Your task to perform on an android device: choose inbox layout in the gmail app Image 0: 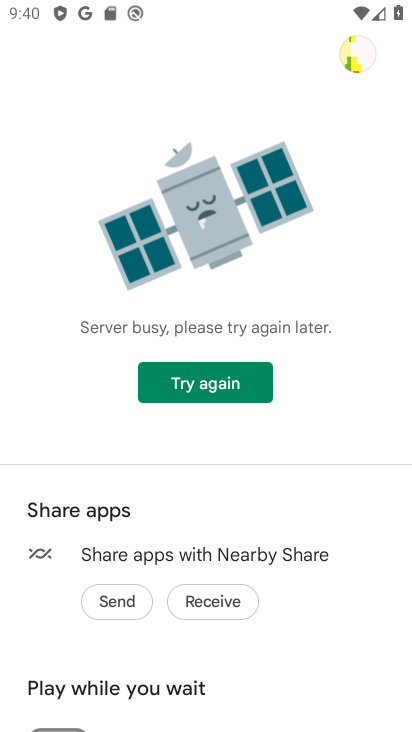
Step 0: press back button
Your task to perform on an android device: choose inbox layout in the gmail app Image 1: 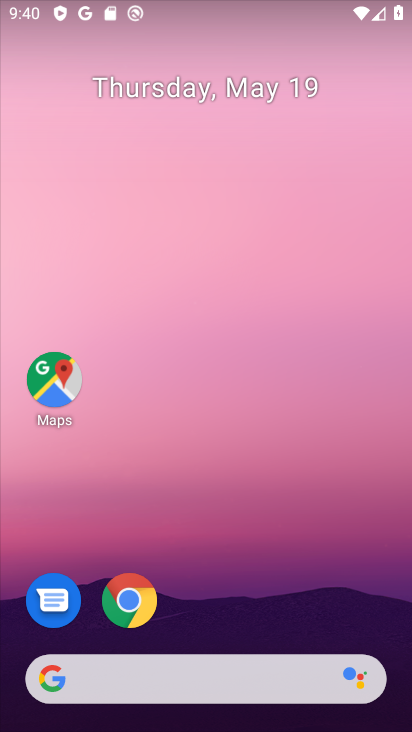
Step 1: drag from (214, 594) to (149, 3)
Your task to perform on an android device: choose inbox layout in the gmail app Image 2: 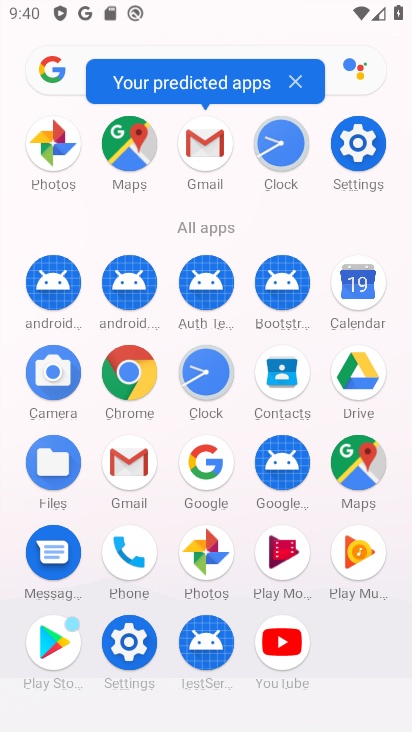
Step 2: click (127, 457)
Your task to perform on an android device: choose inbox layout in the gmail app Image 3: 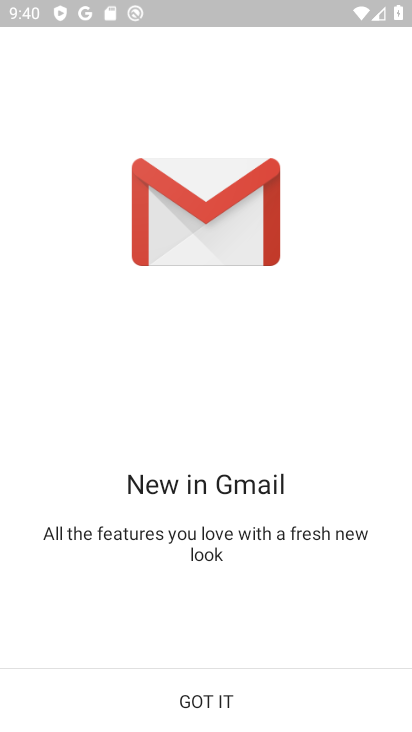
Step 3: click (209, 694)
Your task to perform on an android device: choose inbox layout in the gmail app Image 4: 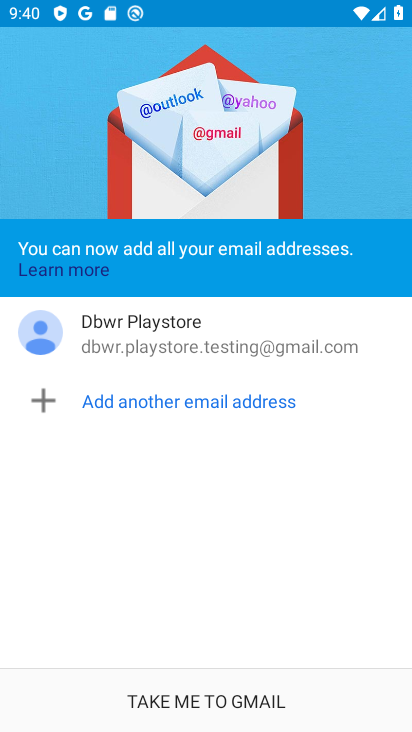
Step 4: click (210, 679)
Your task to perform on an android device: choose inbox layout in the gmail app Image 5: 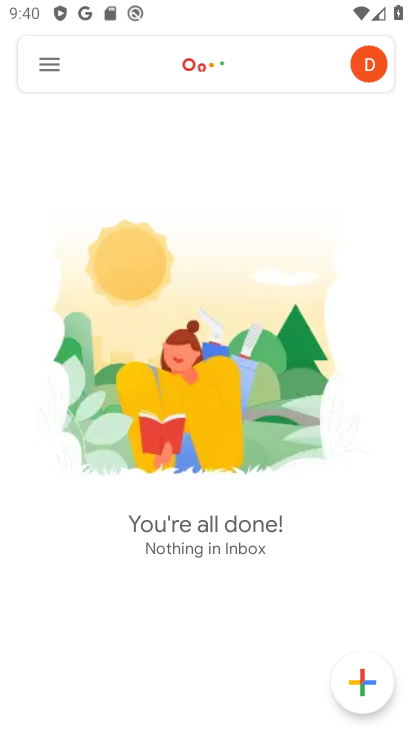
Step 5: click (43, 60)
Your task to perform on an android device: choose inbox layout in the gmail app Image 6: 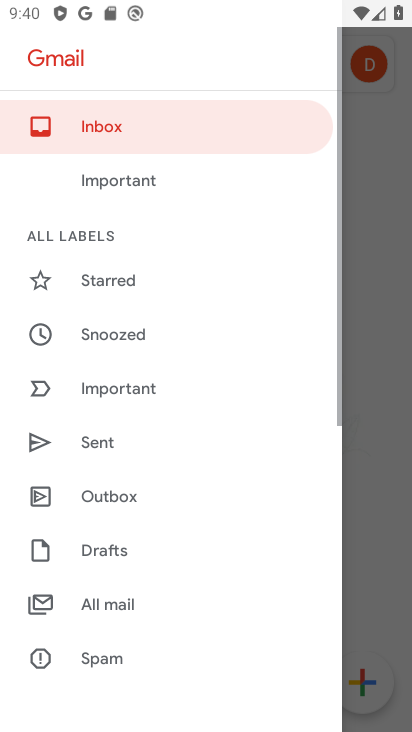
Step 6: drag from (134, 647) to (172, 174)
Your task to perform on an android device: choose inbox layout in the gmail app Image 7: 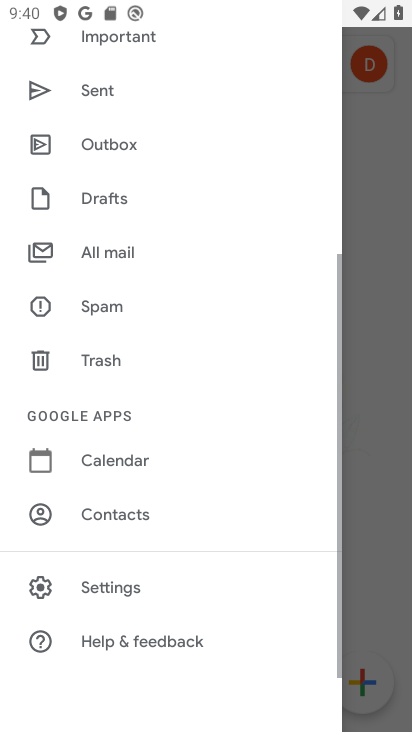
Step 7: click (102, 581)
Your task to perform on an android device: choose inbox layout in the gmail app Image 8: 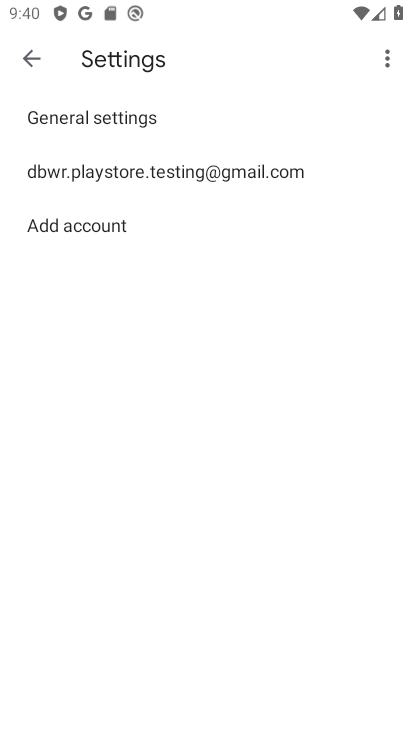
Step 8: click (176, 153)
Your task to perform on an android device: choose inbox layout in the gmail app Image 9: 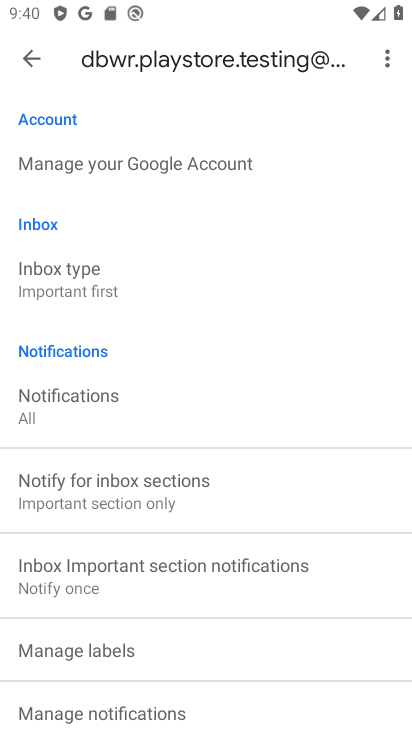
Step 9: click (110, 292)
Your task to perform on an android device: choose inbox layout in the gmail app Image 10: 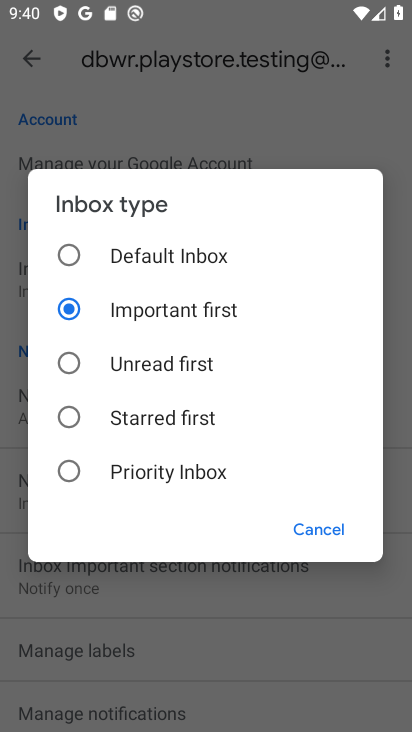
Step 10: click (147, 248)
Your task to perform on an android device: choose inbox layout in the gmail app Image 11: 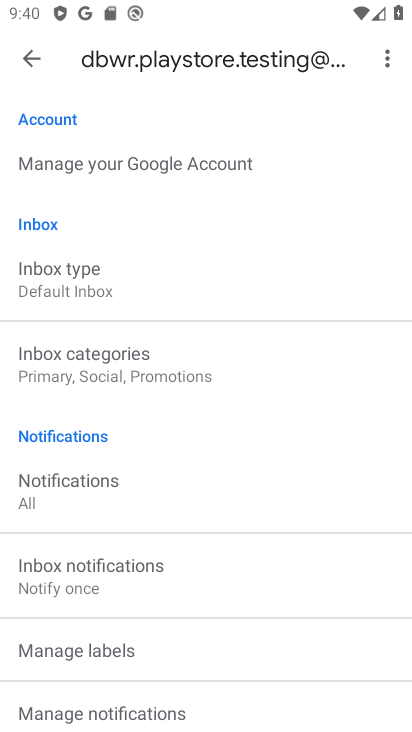
Step 11: task complete